Your task to perform on an android device: Check the news Image 0: 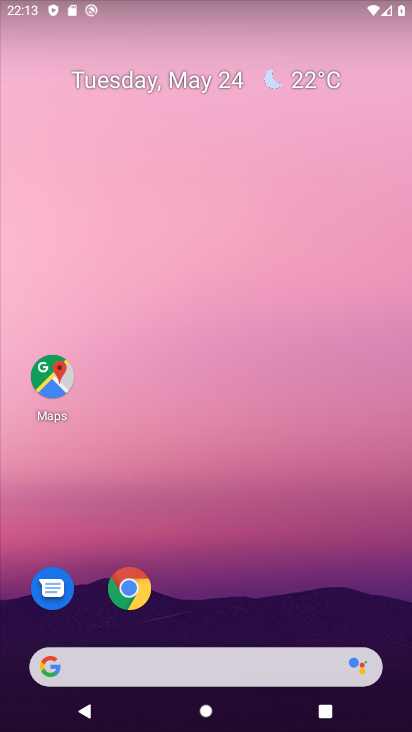
Step 0: click (179, 655)
Your task to perform on an android device: Check the news Image 1: 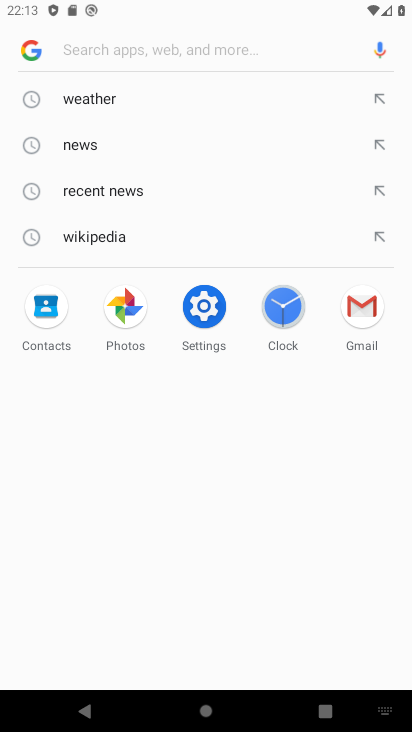
Step 1: click (367, 150)
Your task to perform on an android device: Check the news Image 2: 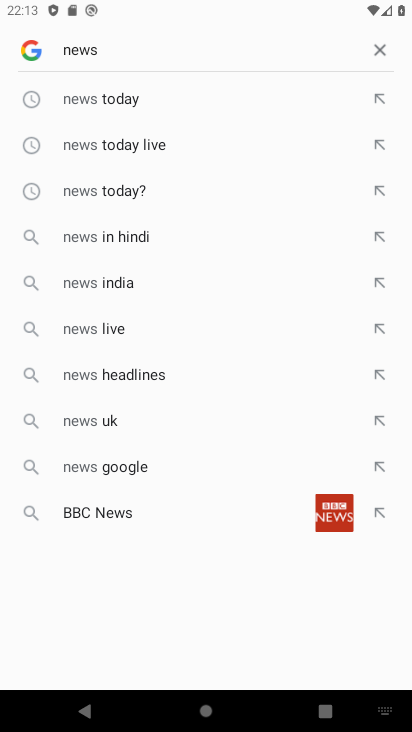
Step 2: press back button
Your task to perform on an android device: Check the news Image 3: 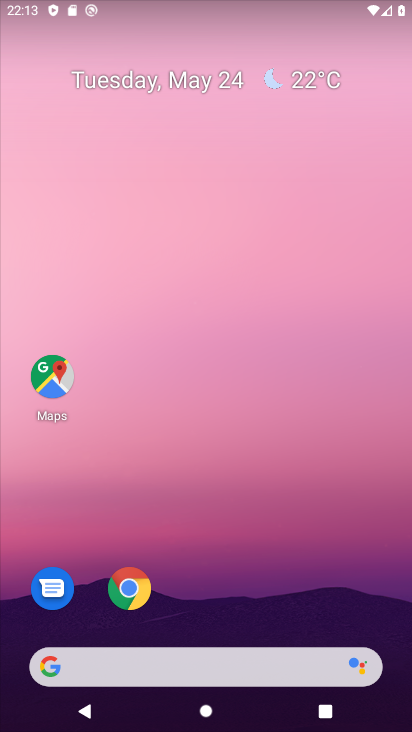
Step 3: click (131, 572)
Your task to perform on an android device: Check the news Image 4: 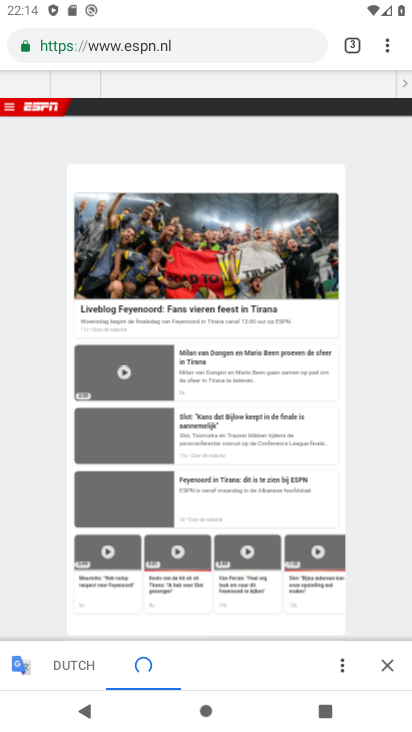
Step 4: press home button
Your task to perform on an android device: Check the news Image 5: 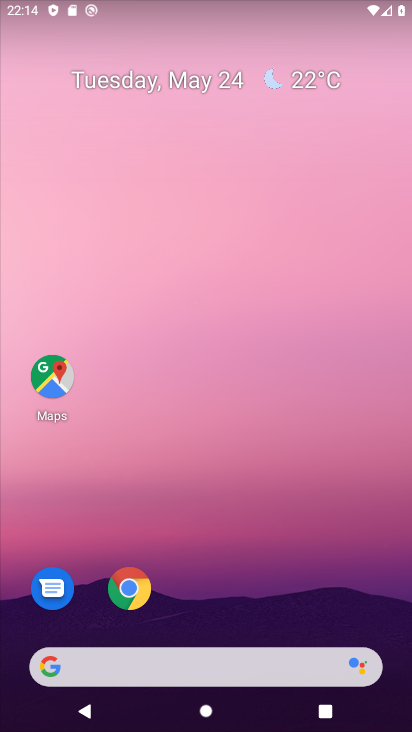
Step 5: click (199, 662)
Your task to perform on an android device: Check the news Image 6: 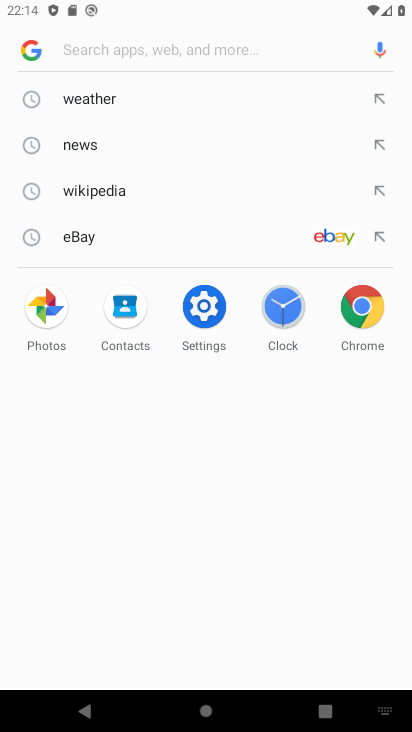
Step 6: click (81, 149)
Your task to perform on an android device: Check the news Image 7: 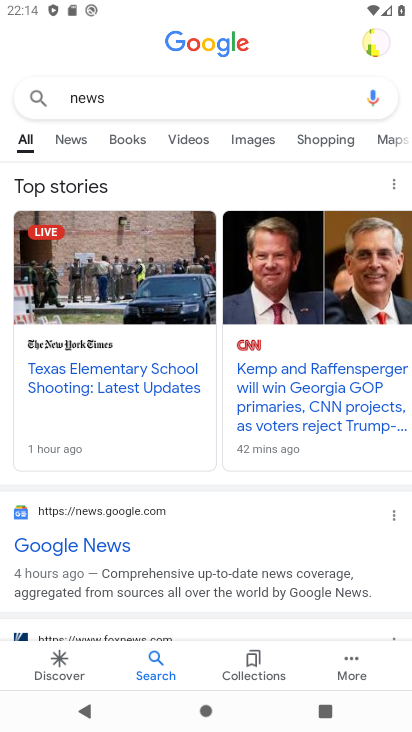
Step 7: task complete